Your task to perform on an android device: Go to eBay Image 0: 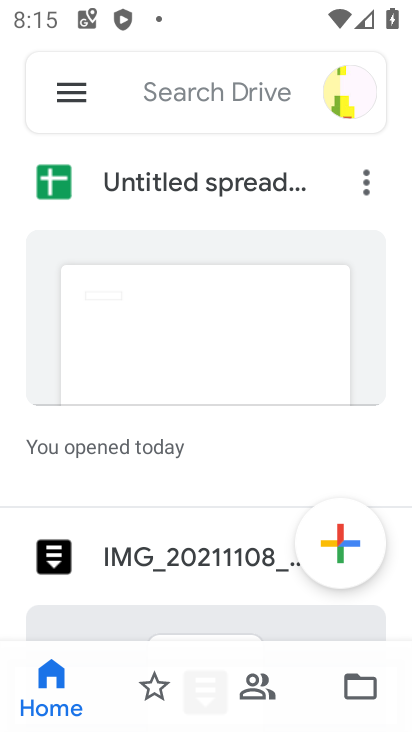
Step 0: press back button
Your task to perform on an android device: Go to eBay Image 1: 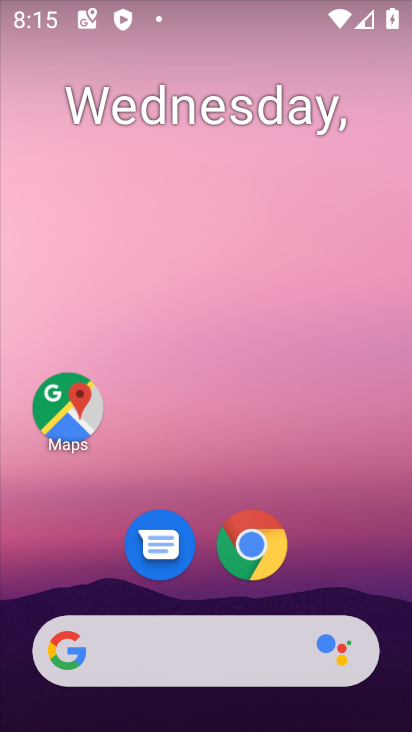
Step 1: click (240, 546)
Your task to perform on an android device: Go to eBay Image 2: 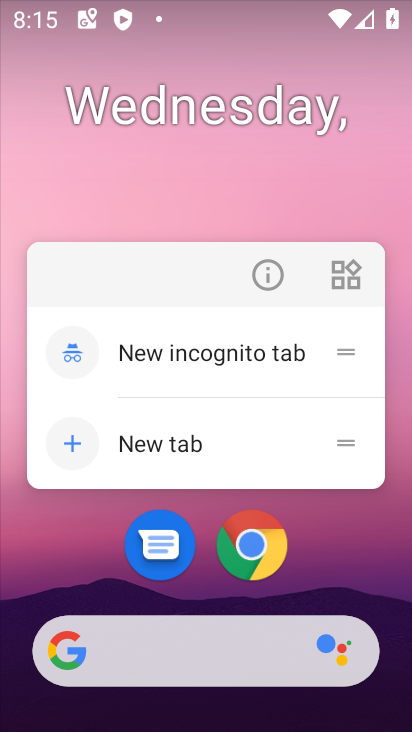
Step 2: click (251, 536)
Your task to perform on an android device: Go to eBay Image 3: 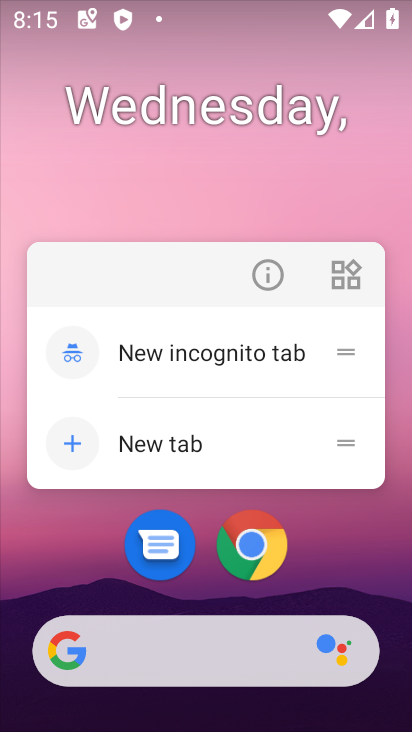
Step 3: click (255, 536)
Your task to perform on an android device: Go to eBay Image 4: 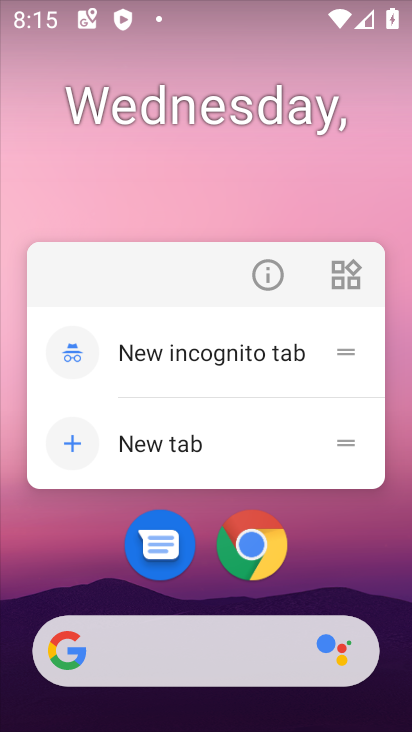
Step 4: click (267, 543)
Your task to perform on an android device: Go to eBay Image 5: 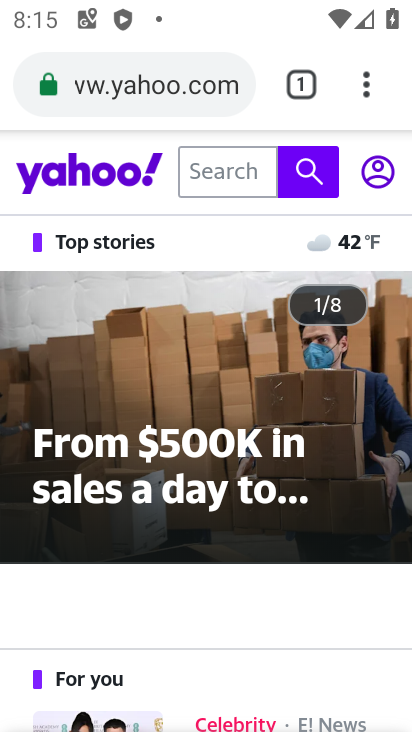
Step 5: click (291, 81)
Your task to perform on an android device: Go to eBay Image 6: 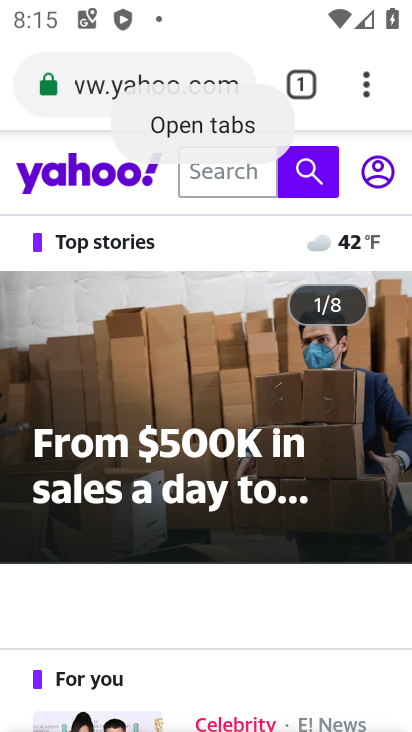
Step 6: click (307, 78)
Your task to perform on an android device: Go to eBay Image 7: 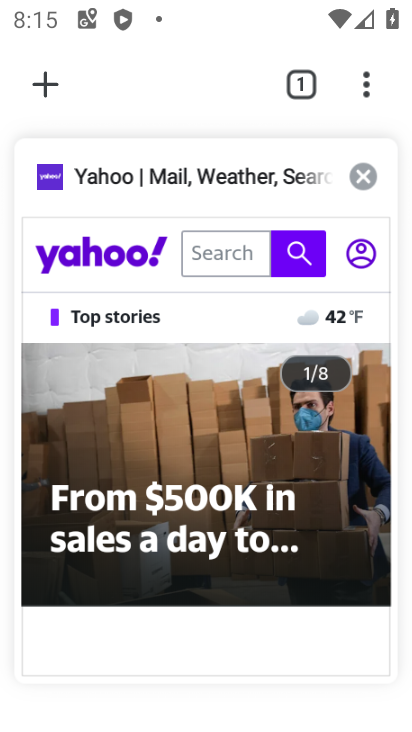
Step 7: click (56, 87)
Your task to perform on an android device: Go to eBay Image 8: 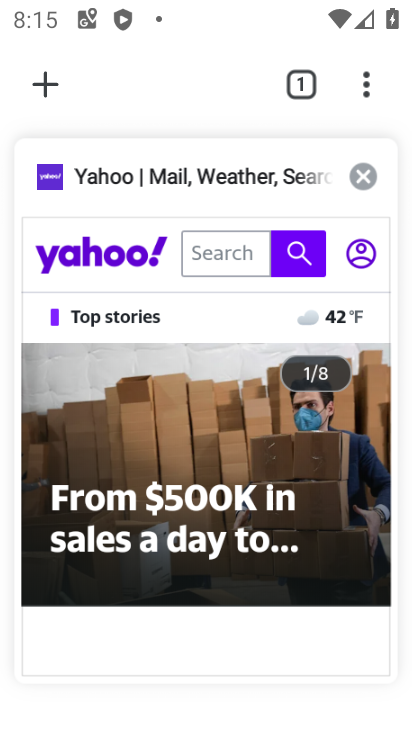
Step 8: click (42, 81)
Your task to perform on an android device: Go to eBay Image 9: 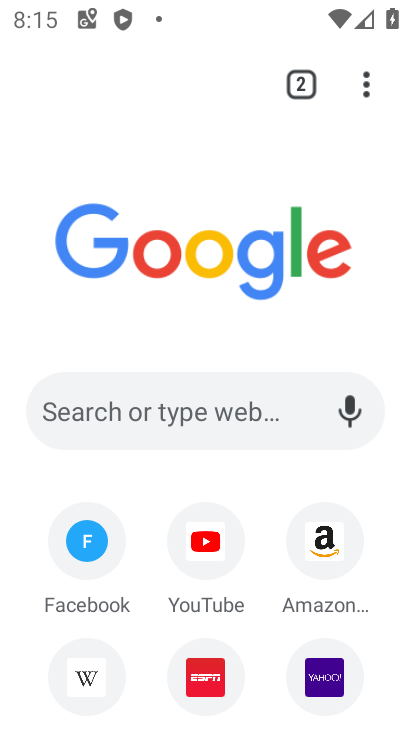
Step 9: click (173, 388)
Your task to perform on an android device: Go to eBay Image 10: 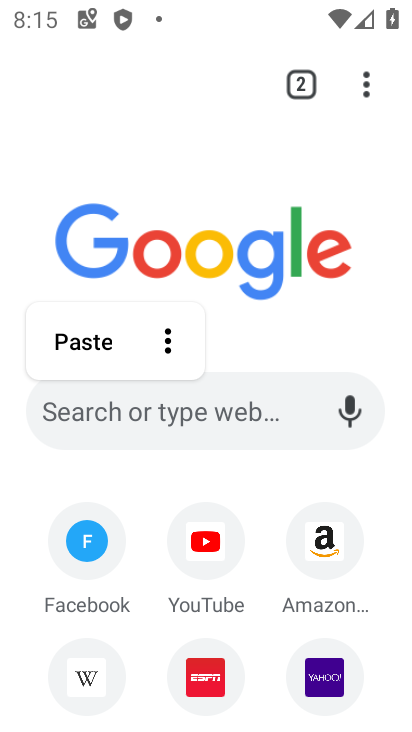
Step 10: type "ebay"
Your task to perform on an android device: Go to eBay Image 11: 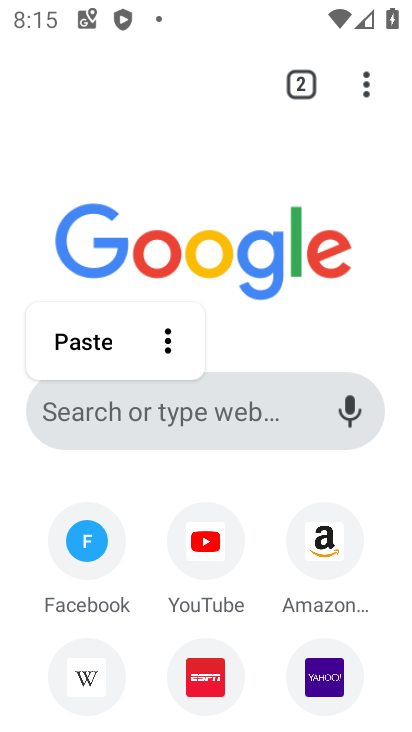
Step 11: click (176, 420)
Your task to perform on an android device: Go to eBay Image 12: 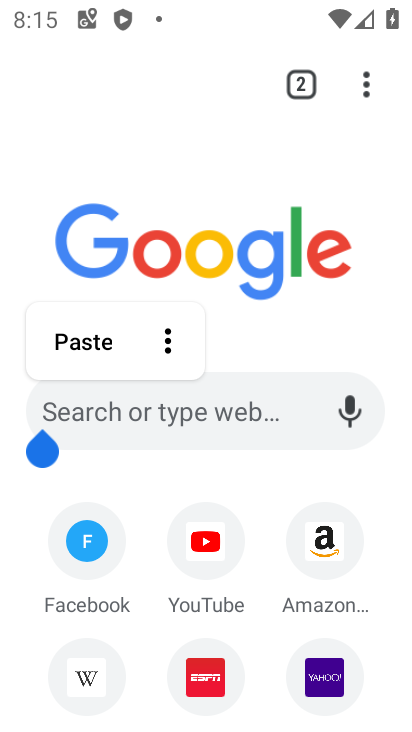
Step 12: click (199, 417)
Your task to perform on an android device: Go to eBay Image 13: 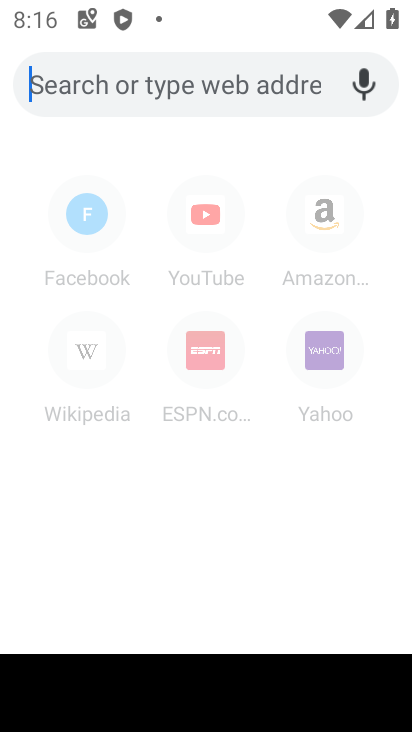
Step 13: type "ebay"
Your task to perform on an android device: Go to eBay Image 14: 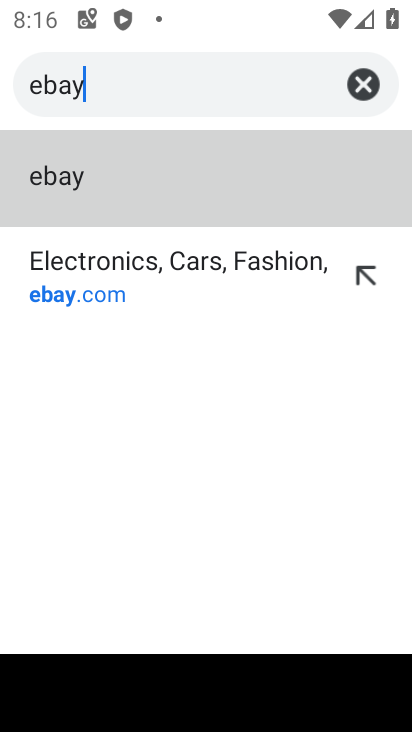
Step 14: click (144, 203)
Your task to perform on an android device: Go to eBay Image 15: 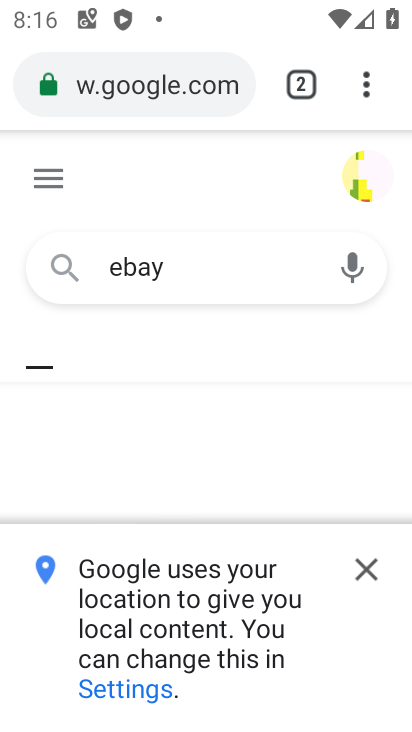
Step 15: click (388, 573)
Your task to perform on an android device: Go to eBay Image 16: 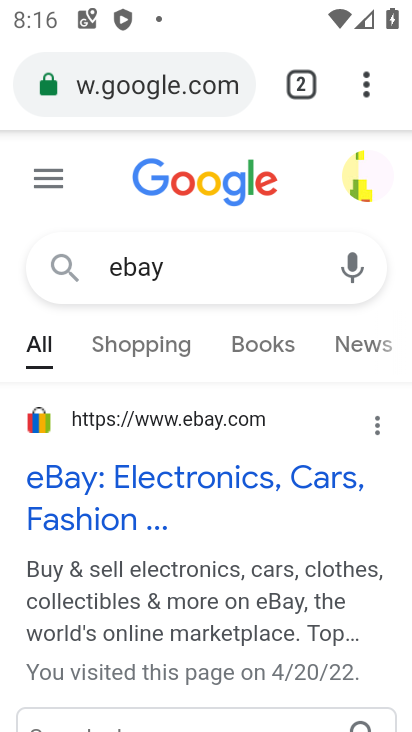
Step 16: click (140, 475)
Your task to perform on an android device: Go to eBay Image 17: 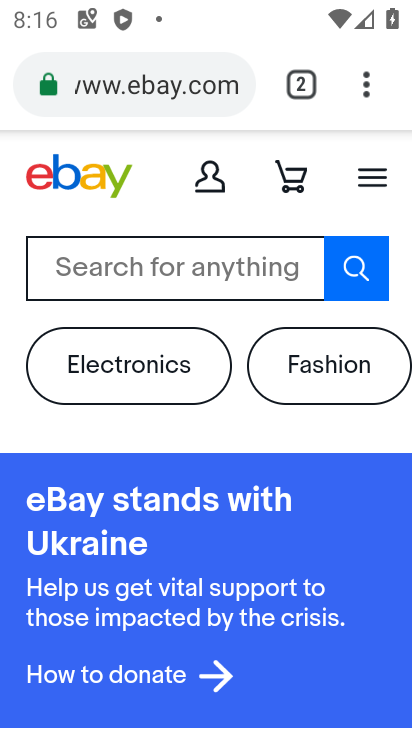
Step 17: task complete